Your task to perform on an android device: turn off smart reply in the gmail app Image 0: 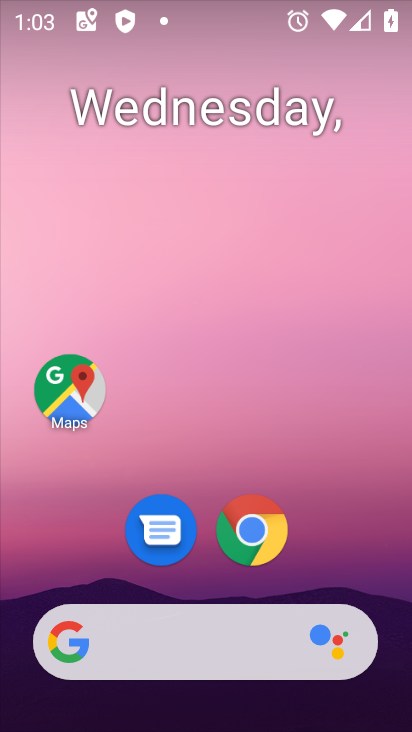
Step 0: drag from (202, 570) to (263, 216)
Your task to perform on an android device: turn off smart reply in the gmail app Image 1: 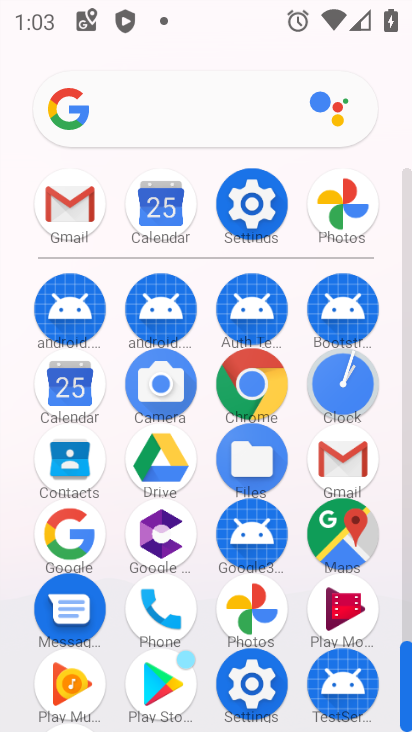
Step 1: click (347, 458)
Your task to perform on an android device: turn off smart reply in the gmail app Image 2: 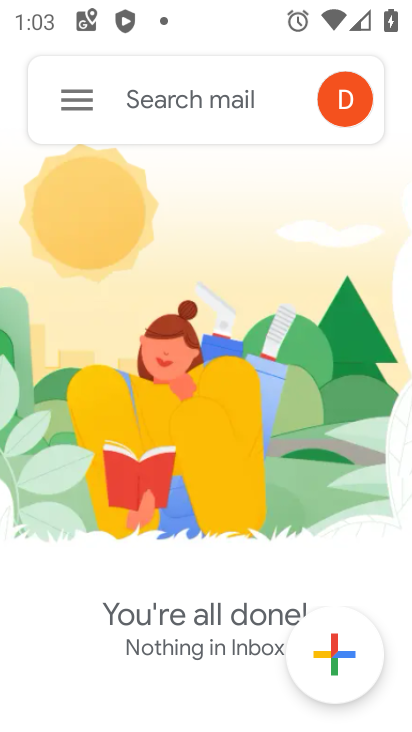
Step 2: click (80, 107)
Your task to perform on an android device: turn off smart reply in the gmail app Image 3: 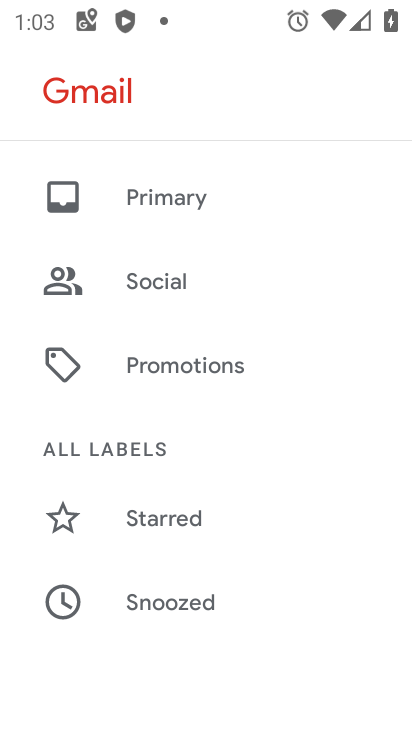
Step 3: drag from (159, 616) to (278, 201)
Your task to perform on an android device: turn off smart reply in the gmail app Image 4: 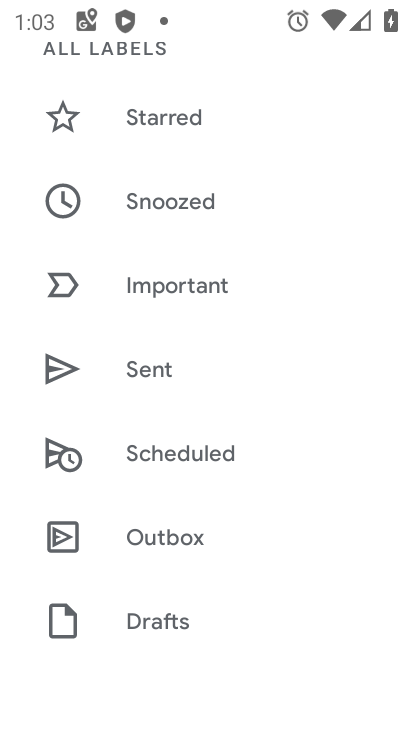
Step 4: drag from (150, 565) to (218, 163)
Your task to perform on an android device: turn off smart reply in the gmail app Image 5: 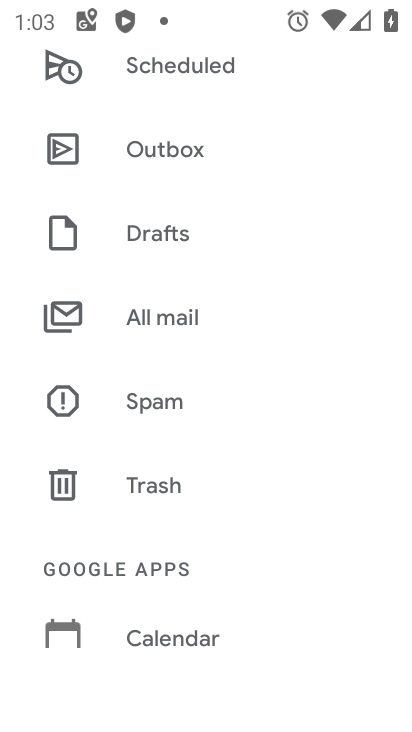
Step 5: drag from (158, 579) to (237, 182)
Your task to perform on an android device: turn off smart reply in the gmail app Image 6: 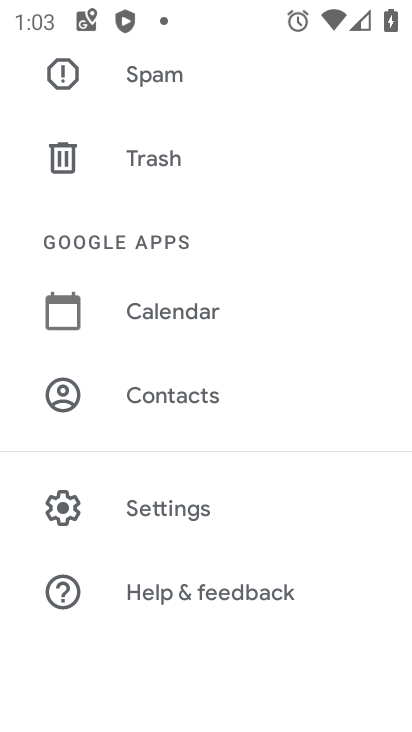
Step 6: click (173, 507)
Your task to perform on an android device: turn off smart reply in the gmail app Image 7: 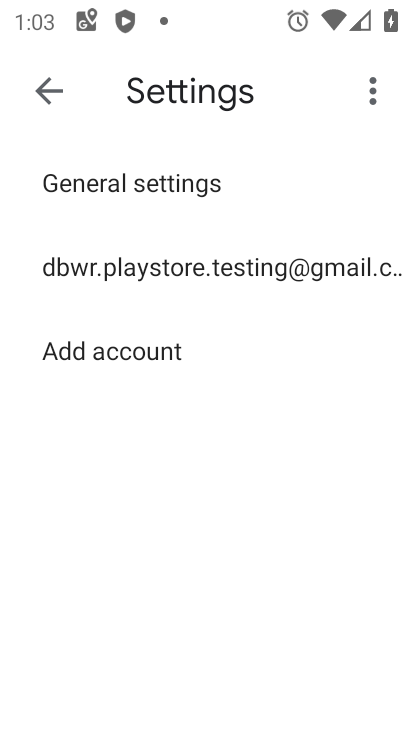
Step 7: click (281, 259)
Your task to perform on an android device: turn off smart reply in the gmail app Image 8: 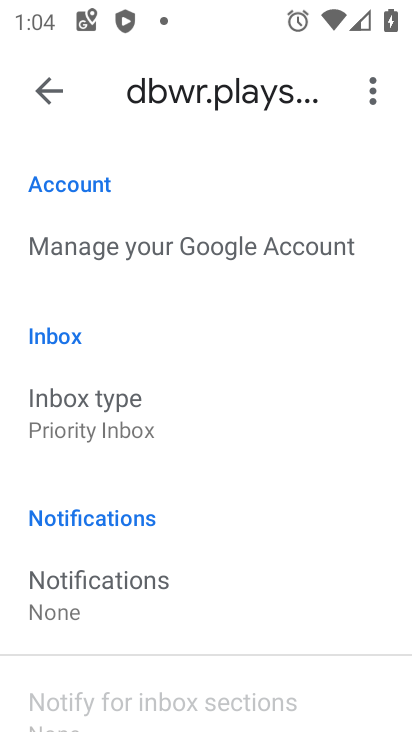
Step 8: drag from (130, 591) to (219, 228)
Your task to perform on an android device: turn off smart reply in the gmail app Image 9: 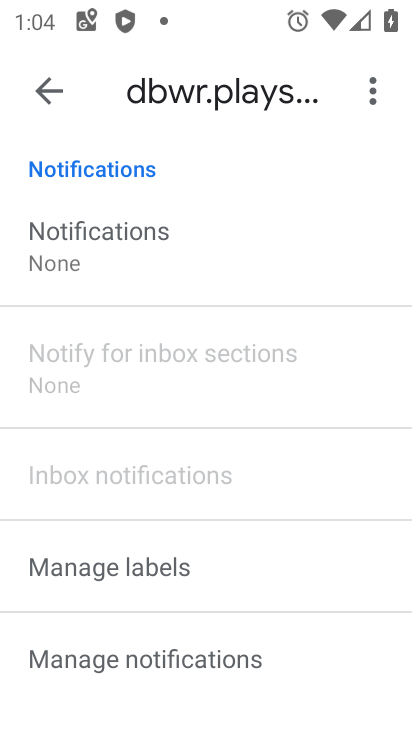
Step 9: drag from (190, 613) to (294, 229)
Your task to perform on an android device: turn off smart reply in the gmail app Image 10: 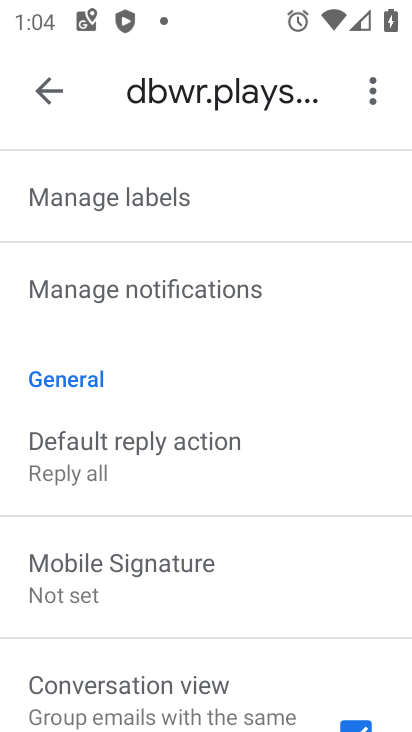
Step 10: drag from (132, 598) to (228, 195)
Your task to perform on an android device: turn off smart reply in the gmail app Image 11: 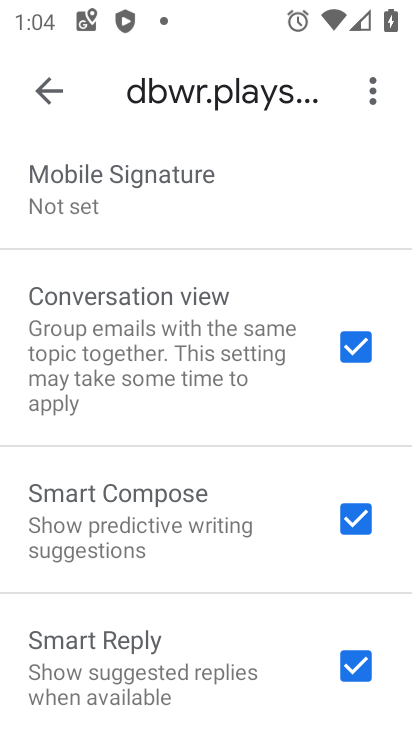
Step 11: click (362, 665)
Your task to perform on an android device: turn off smart reply in the gmail app Image 12: 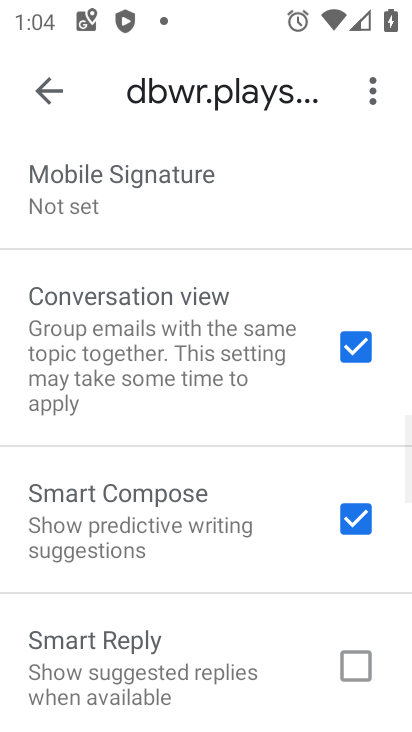
Step 12: task complete